Your task to perform on an android device: snooze an email in the gmail app Image 0: 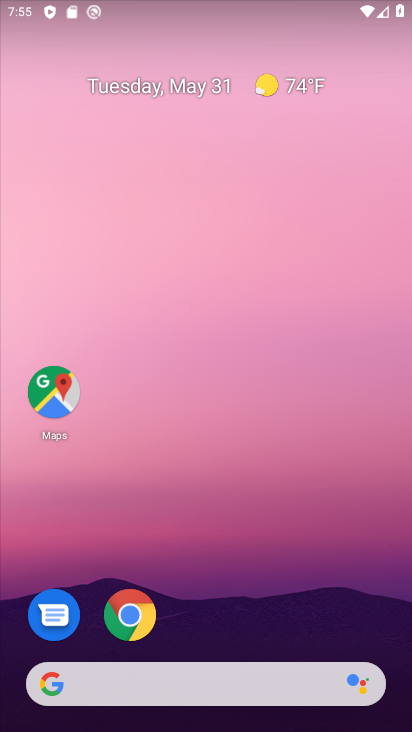
Step 0: drag from (235, 641) to (248, 192)
Your task to perform on an android device: snooze an email in the gmail app Image 1: 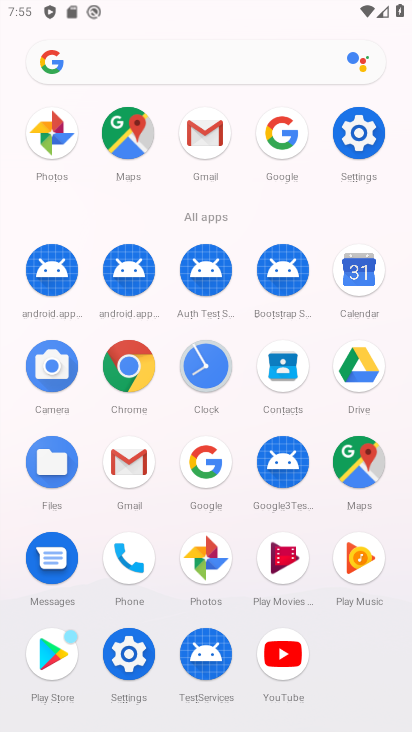
Step 1: click (218, 140)
Your task to perform on an android device: snooze an email in the gmail app Image 2: 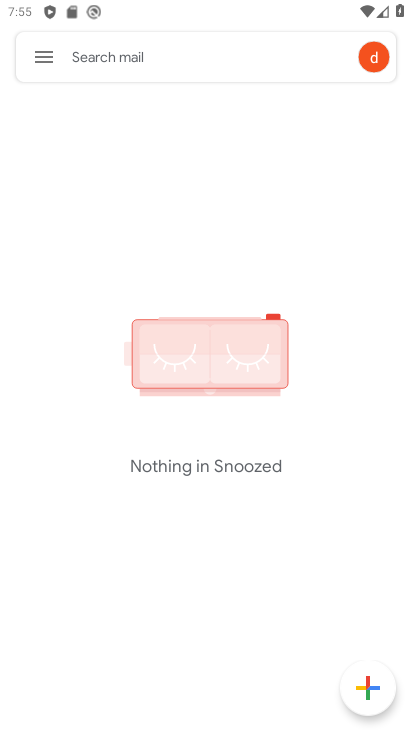
Step 2: click (43, 57)
Your task to perform on an android device: snooze an email in the gmail app Image 3: 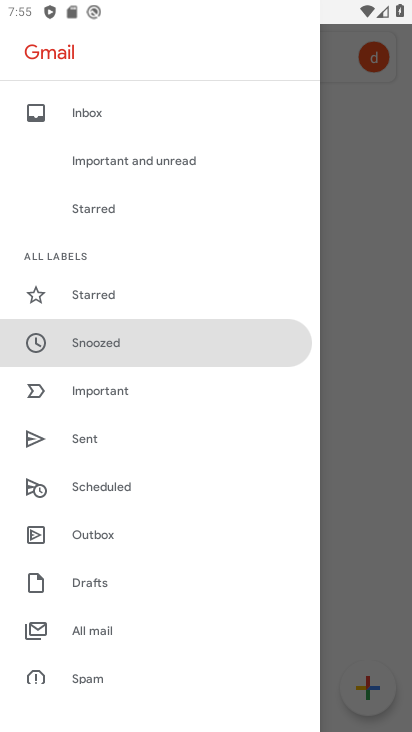
Step 3: drag from (144, 605) to (166, 362)
Your task to perform on an android device: snooze an email in the gmail app Image 4: 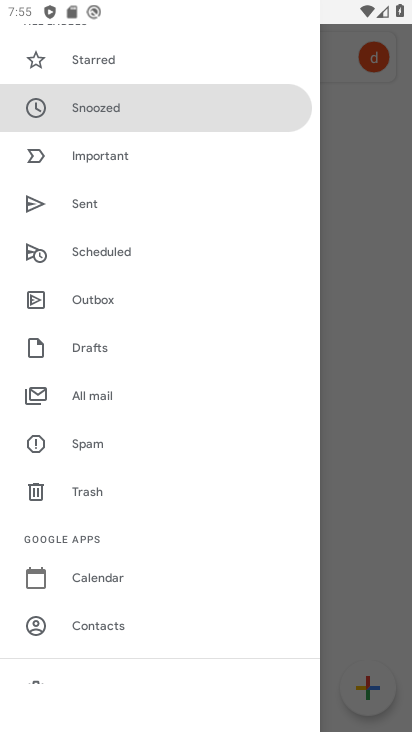
Step 4: click (154, 391)
Your task to perform on an android device: snooze an email in the gmail app Image 5: 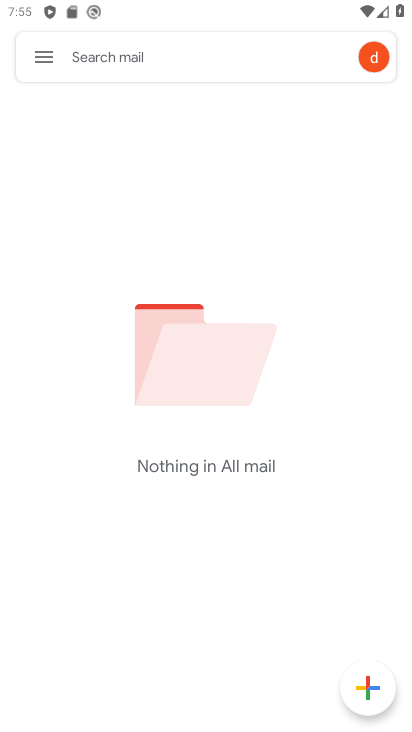
Step 5: task complete